Your task to perform on an android device: Add "razer nari" to the cart on target, then select checkout. Image 0: 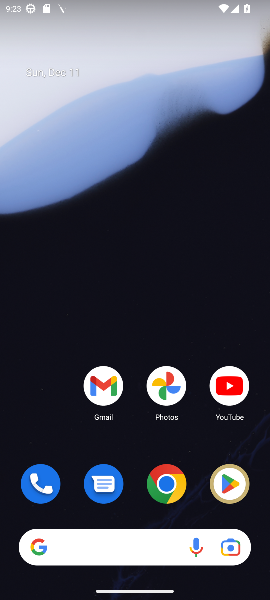
Step 0: click (171, 478)
Your task to perform on an android device: Add "razer nari" to the cart on target, then select checkout. Image 1: 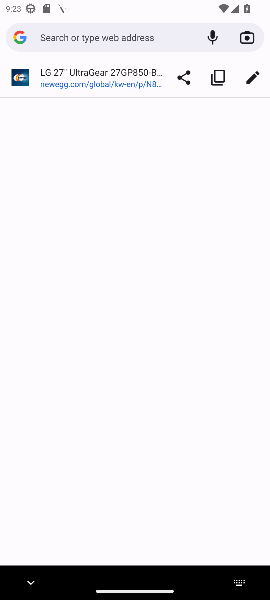
Step 1: type "target"
Your task to perform on an android device: Add "razer nari" to the cart on target, then select checkout. Image 2: 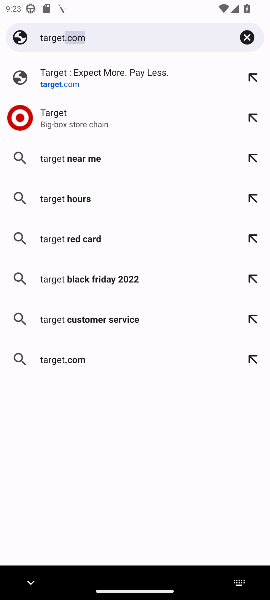
Step 2: click (36, 124)
Your task to perform on an android device: Add "razer nari" to the cart on target, then select checkout. Image 3: 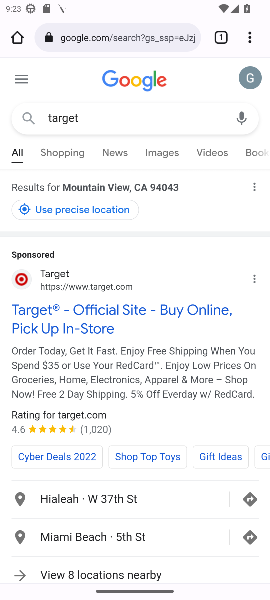
Step 3: click (101, 315)
Your task to perform on an android device: Add "razer nari" to the cart on target, then select checkout. Image 4: 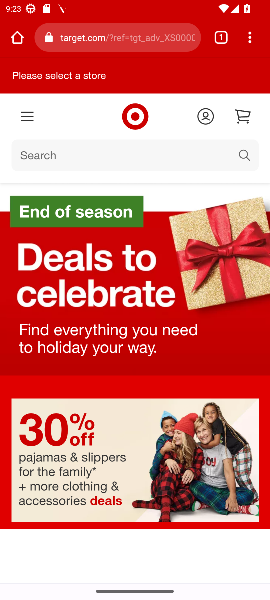
Step 4: click (77, 144)
Your task to perform on an android device: Add "razer nari" to the cart on target, then select checkout. Image 5: 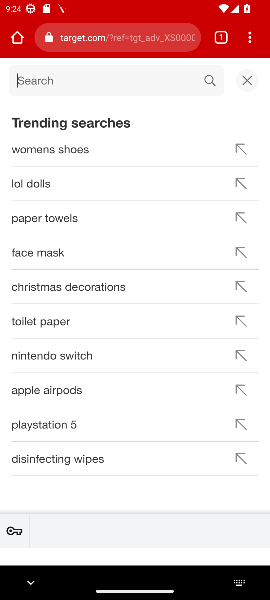
Step 5: type "razer nari"
Your task to perform on an android device: Add "razer nari" to the cart on target, then select checkout. Image 6: 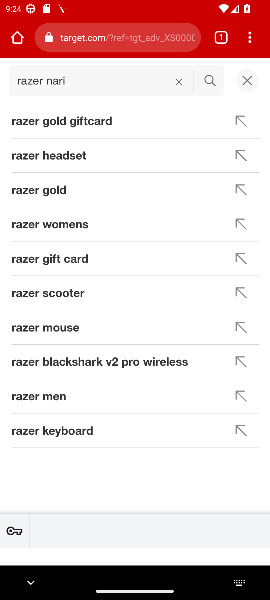
Step 6: click (210, 85)
Your task to perform on an android device: Add "razer nari" to the cart on target, then select checkout. Image 7: 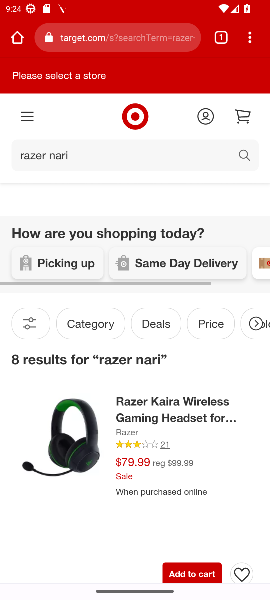
Step 7: task complete